Your task to perform on an android device: Open Chrome and go to settings Image 0: 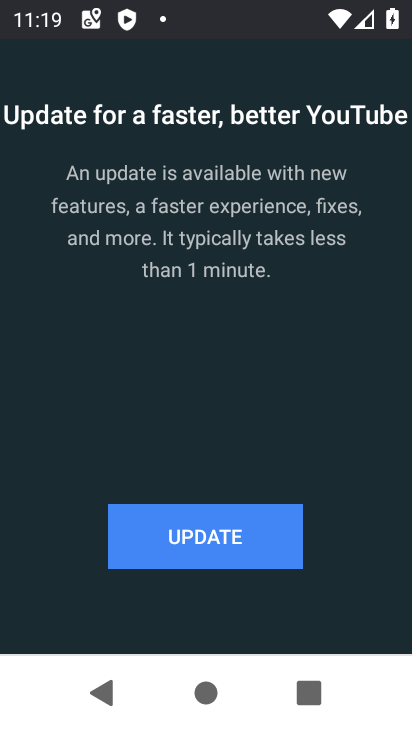
Step 0: press home button
Your task to perform on an android device: Open Chrome and go to settings Image 1: 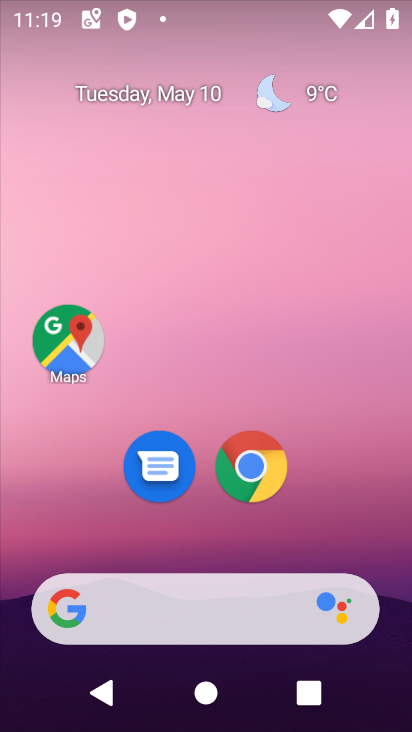
Step 1: click (255, 454)
Your task to perform on an android device: Open Chrome and go to settings Image 2: 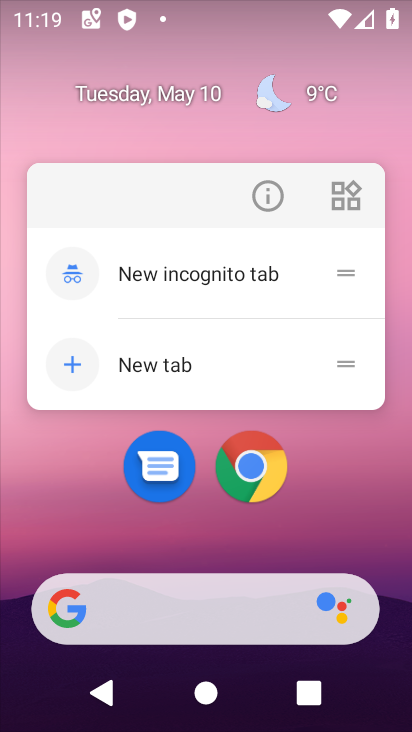
Step 2: click (255, 454)
Your task to perform on an android device: Open Chrome and go to settings Image 3: 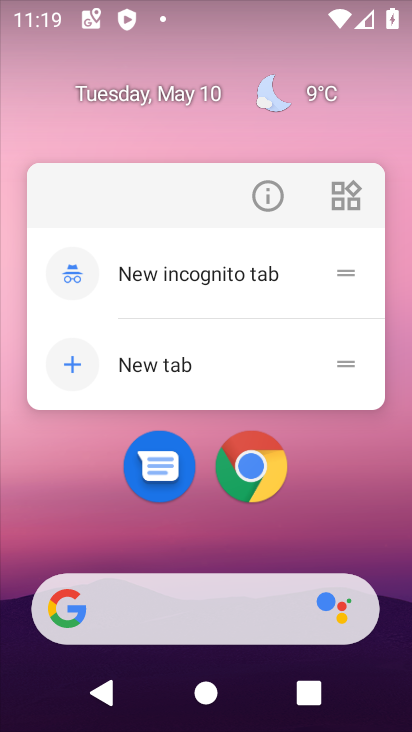
Step 3: click (255, 454)
Your task to perform on an android device: Open Chrome and go to settings Image 4: 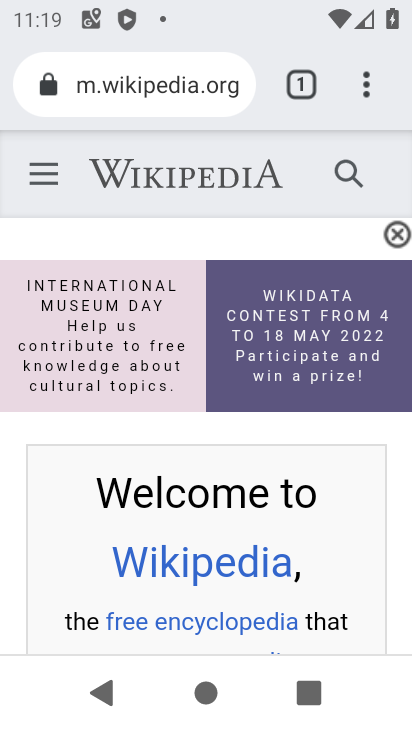
Step 4: click (371, 66)
Your task to perform on an android device: Open Chrome and go to settings Image 5: 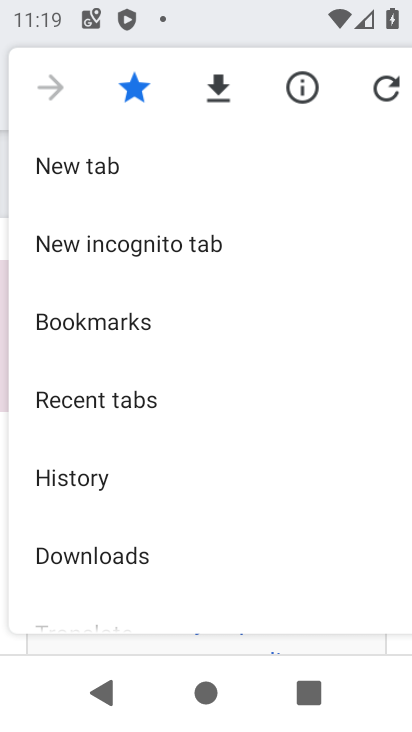
Step 5: drag from (189, 368) to (186, 294)
Your task to perform on an android device: Open Chrome and go to settings Image 6: 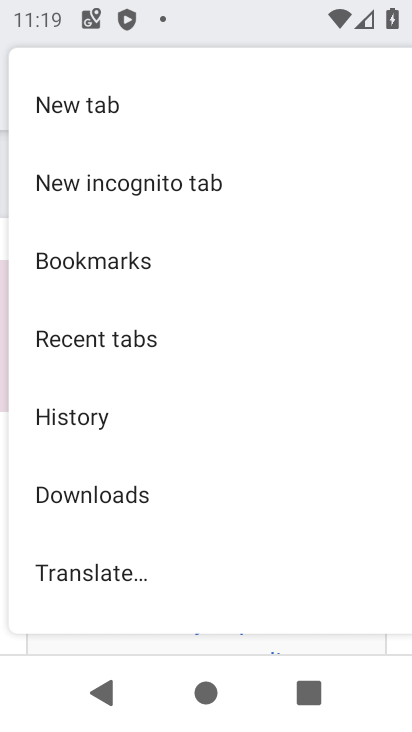
Step 6: drag from (132, 543) to (130, 264)
Your task to perform on an android device: Open Chrome and go to settings Image 7: 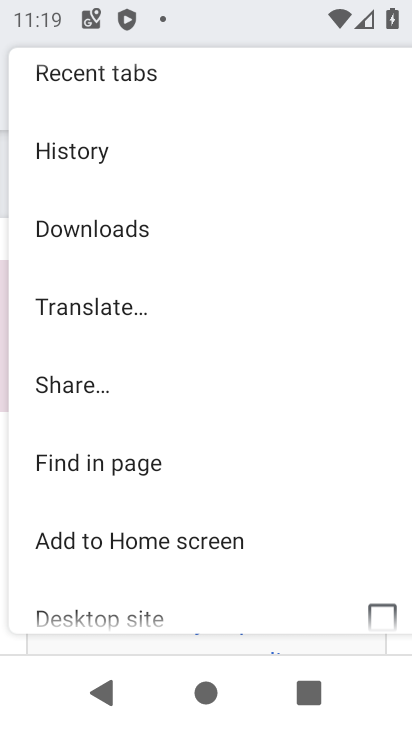
Step 7: drag from (122, 451) to (130, 181)
Your task to perform on an android device: Open Chrome and go to settings Image 8: 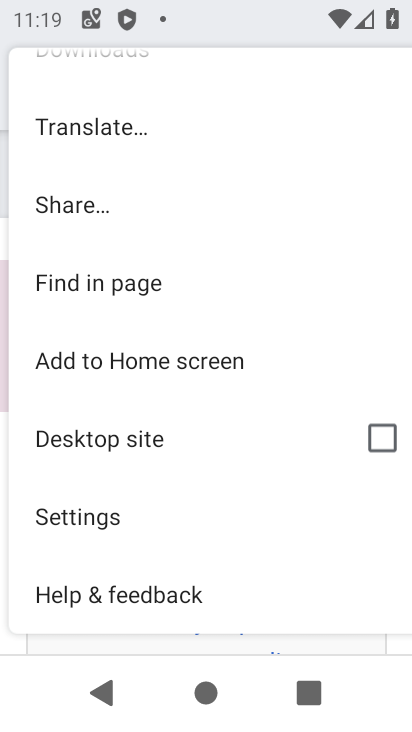
Step 8: click (148, 521)
Your task to perform on an android device: Open Chrome and go to settings Image 9: 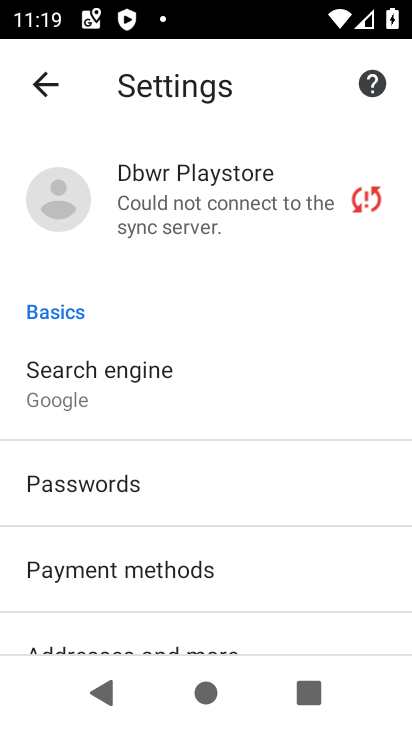
Step 9: task complete